Your task to perform on an android device: Open location settings Image 0: 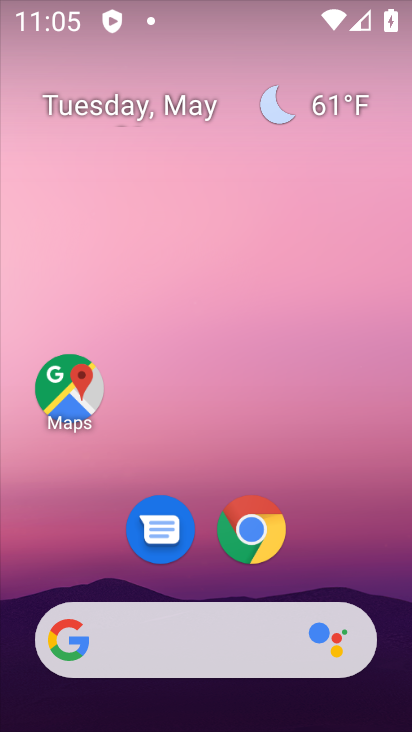
Step 0: drag from (346, 515) to (198, 211)
Your task to perform on an android device: Open location settings Image 1: 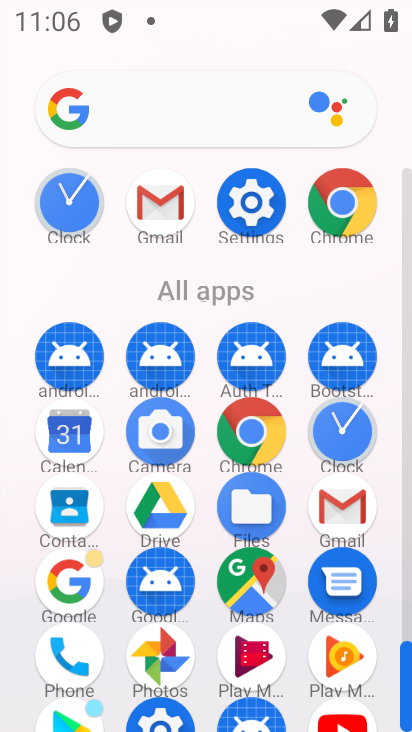
Step 1: click (243, 214)
Your task to perform on an android device: Open location settings Image 2: 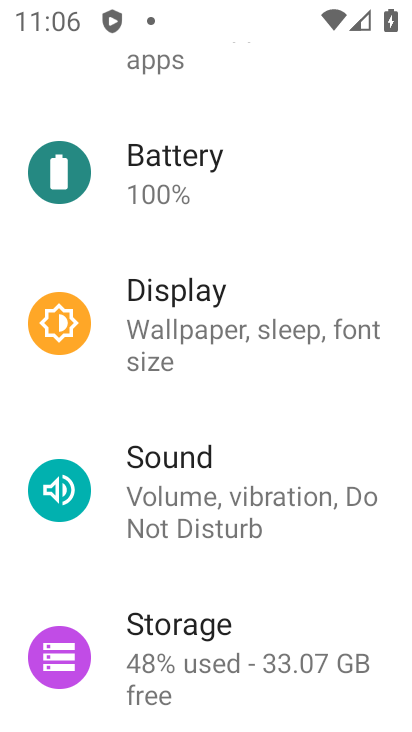
Step 2: drag from (243, 214) to (227, 58)
Your task to perform on an android device: Open location settings Image 3: 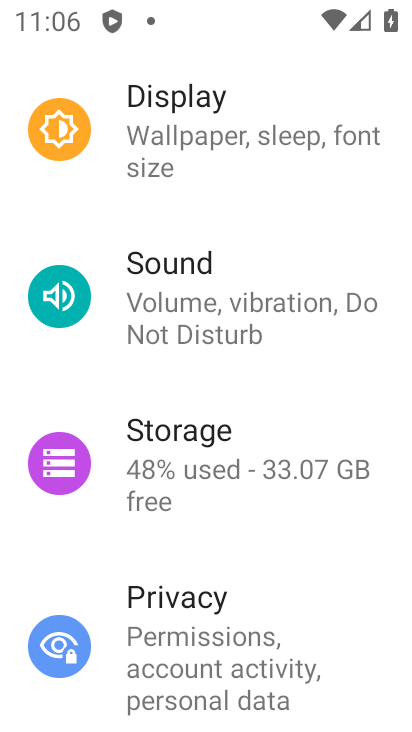
Step 3: drag from (213, 521) to (249, 233)
Your task to perform on an android device: Open location settings Image 4: 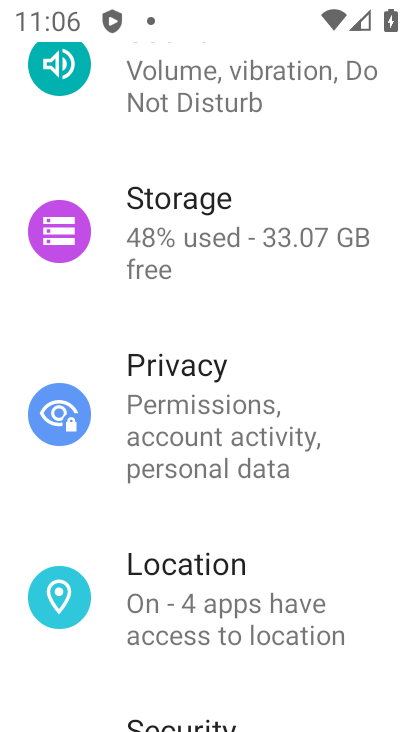
Step 4: click (203, 590)
Your task to perform on an android device: Open location settings Image 5: 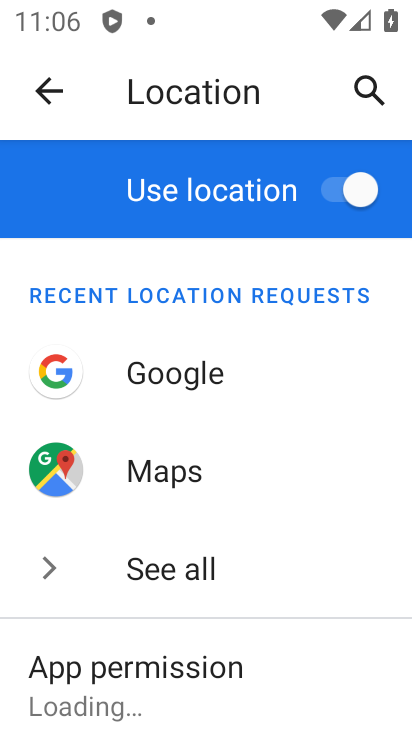
Step 5: task complete